Your task to perform on an android device: Go to internet settings Image 0: 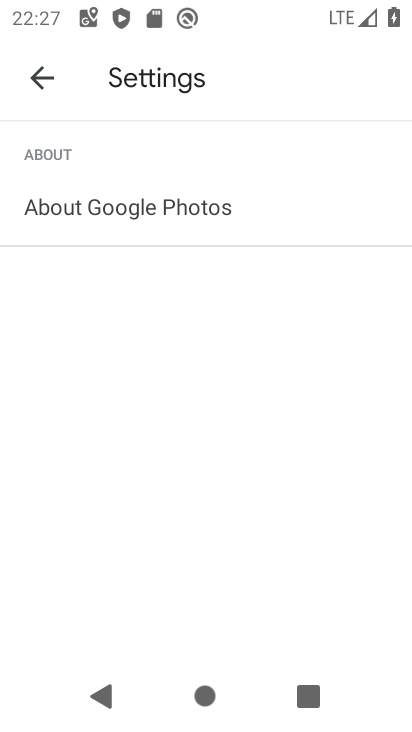
Step 0: press back button
Your task to perform on an android device: Go to internet settings Image 1: 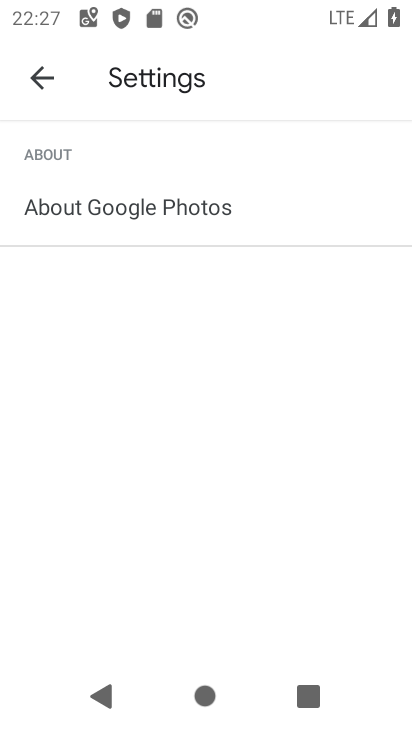
Step 1: press back button
Your task to perform on an android device: Go to internet settings Image 2: 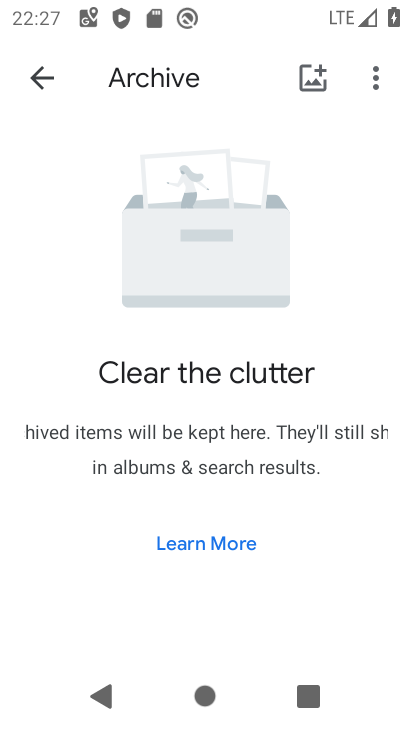
Step 2: press back button
Your task to perform on an android device: Go to internet settings Image 3: 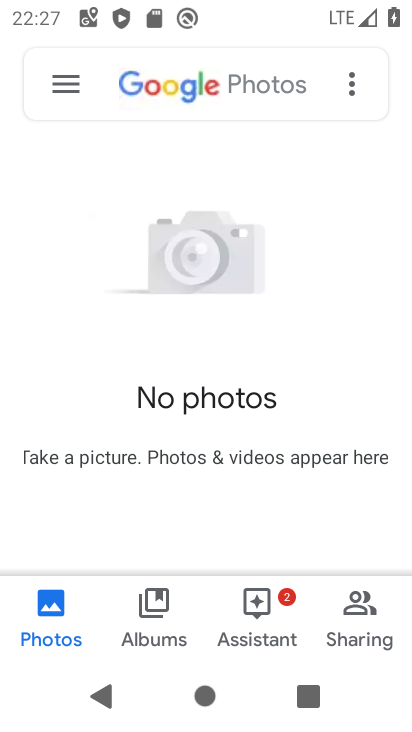
Step 3: press back button
Your task to perform on an android device: Go to internet settings Image 4: 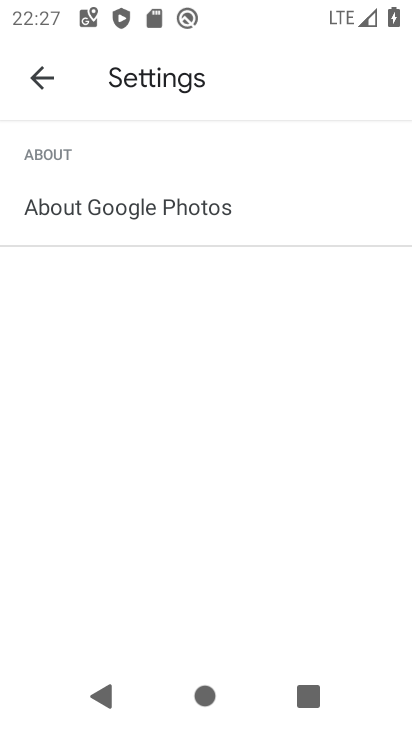
Step 4: press back button
Your task to perform on an android device: Go to internet settings Image 5: 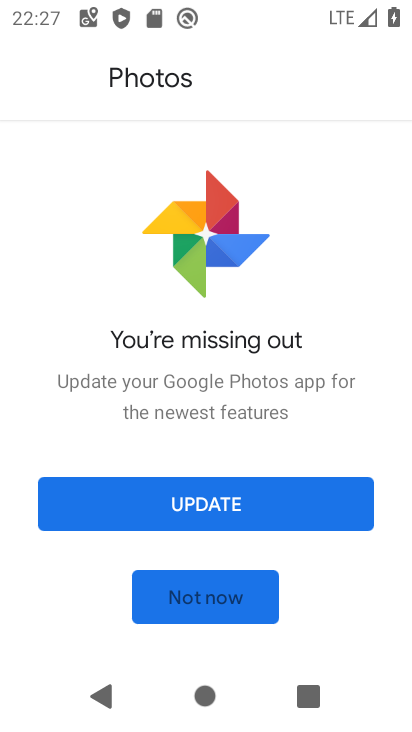
Step 5: press back button
Your task to perform on an android device: Go to internet settings Image 6: 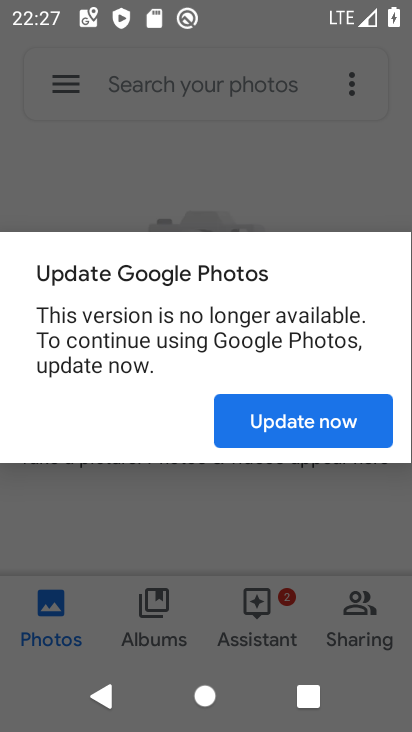
Step 6: press home button
Your task to perform on an android device: Go to internet settings Image 7: 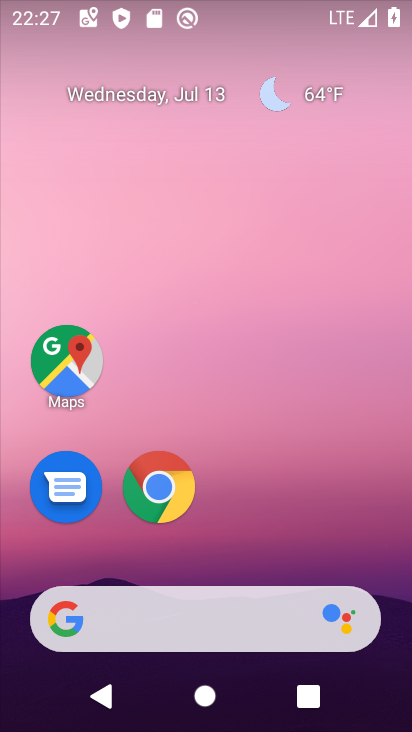
Step 7: drag from (277, 500) to (304, 0)
Your task to perform on an android device: Go to internet settings Image 8: 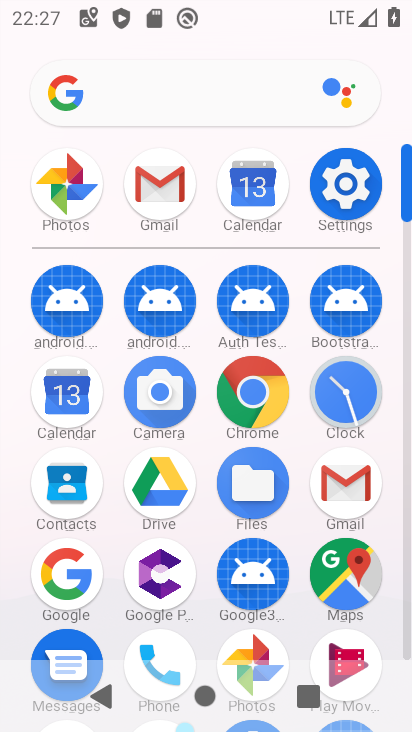
Step 8: click (339, 199)
Your task to perform on an android device: Go to internet settings Image 9: 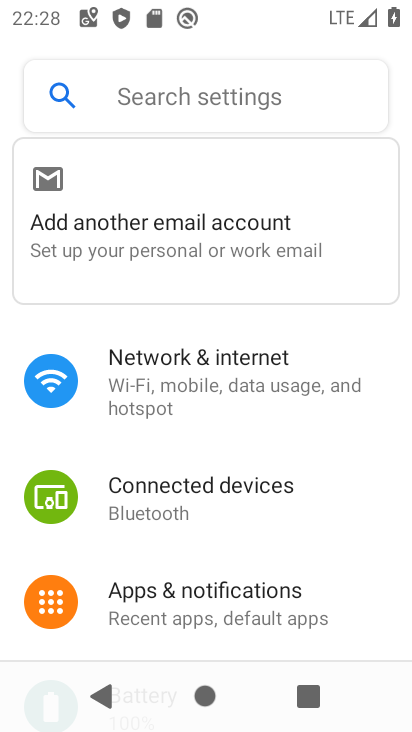
Step 9: click (214, 390)
Your task to perform on an android device: Go to internet settings Image 10: 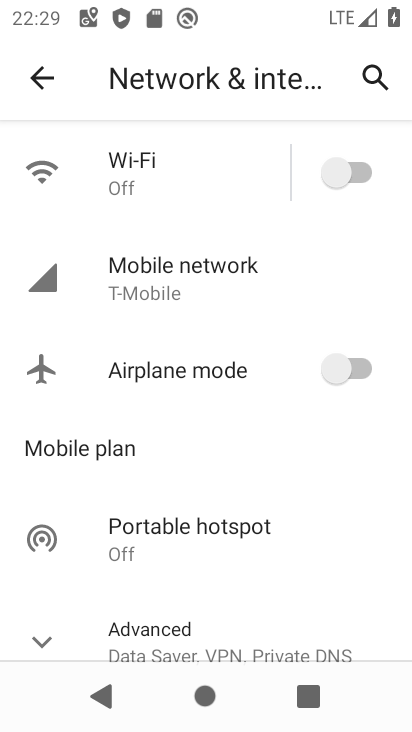
Step 10: task complete